Your task to perform on an android device: manage bookmarks in the chrome app Image 0: 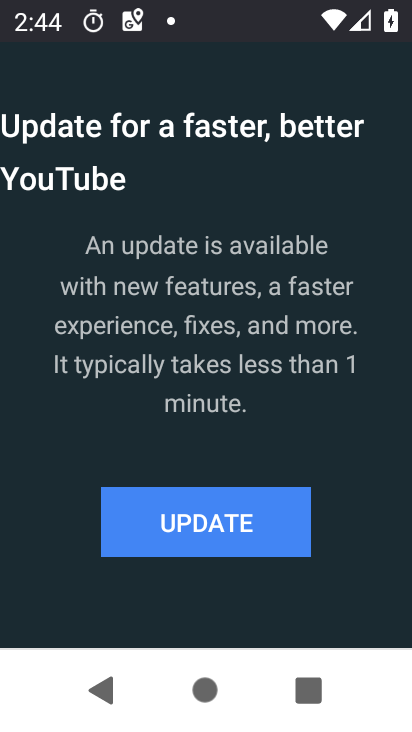
Step 0: press back button
Your task to perform on an android device: manage bookmarks in the chrome app Image 1: 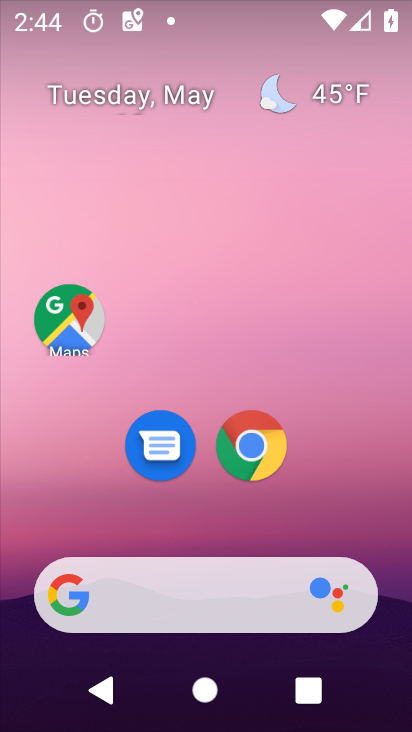
Step 1: click (248, 445)
Your task to perform on an android device: manage bookmarks in the chrome app Image 2: 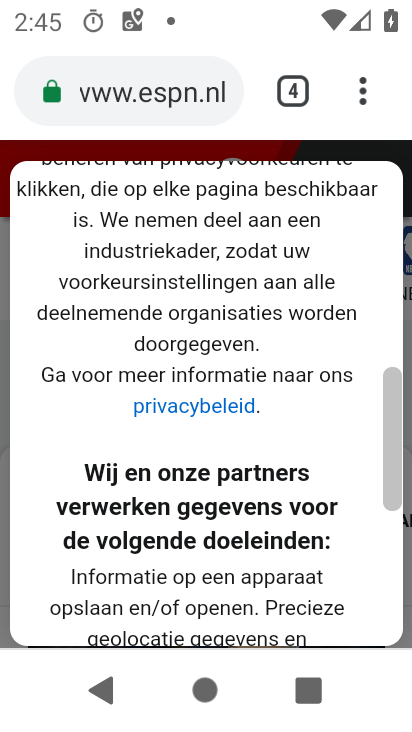
Step 2: drag from (363, 80) to (126, 380)
Your task to perform on an android device: manage bookmarks in the chrome app Image 3: 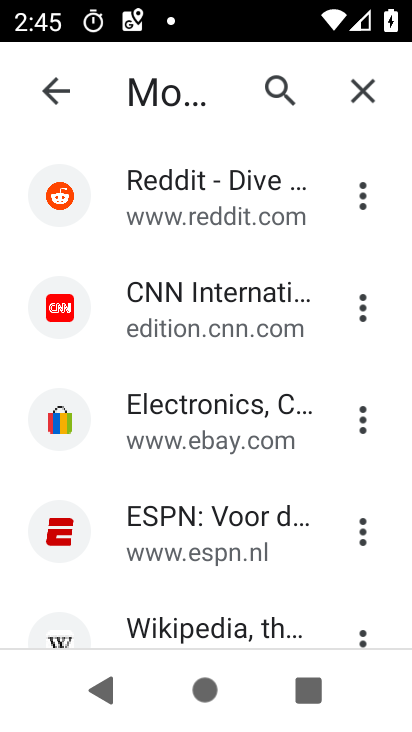
Step 3: click (356, 202)
Your task to perform on an android device: manage bookmarks in the chrome app Image 4: 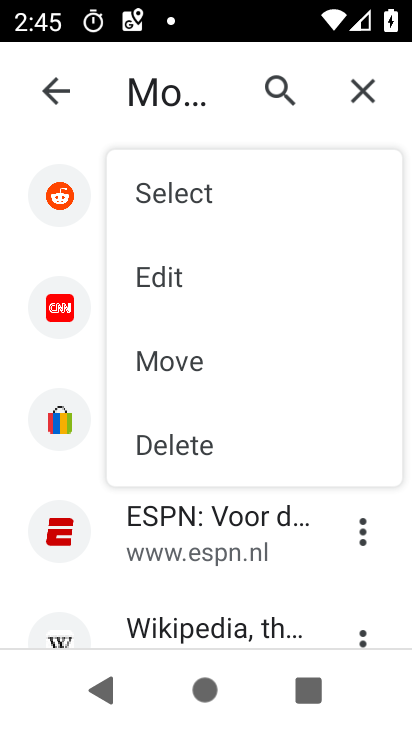
Step 4: click (166, 448)
Your task to perform on an android device: manage bookmarks in the chrome app Image 5: 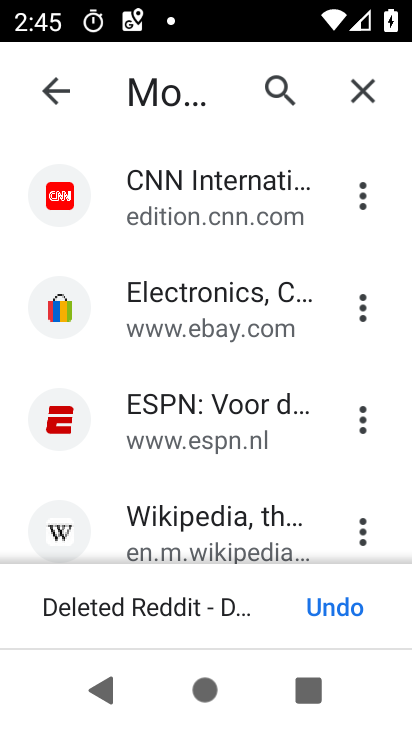
Step 5: task complete